Your task to perform on an android device: find photos in the google photos app Image 0: 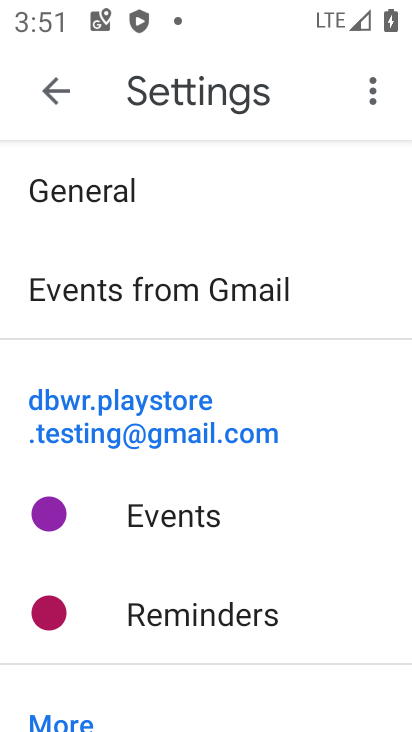
Step 0: press home button
Your task to perform on an android device: find photos in the google photos app Image 1: 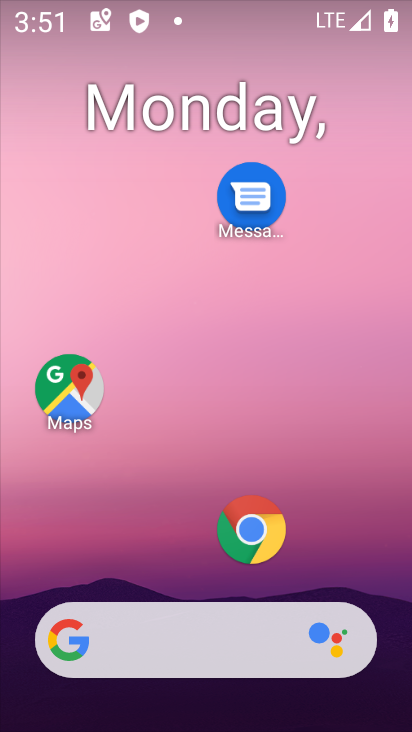
Step 1: drag from (277, 540) to (240, 1)
Your task to perform on an android device: find photos in the google photos app Image 2: 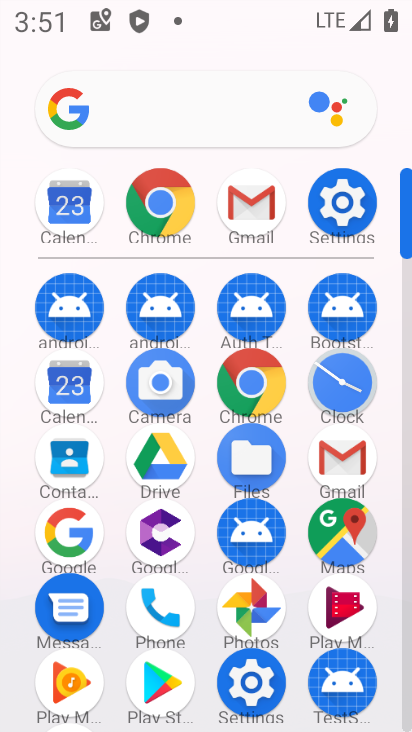
Step 2: click (237, 608)
Your task to perform on an android device: find photos in the google photos app Image 3: 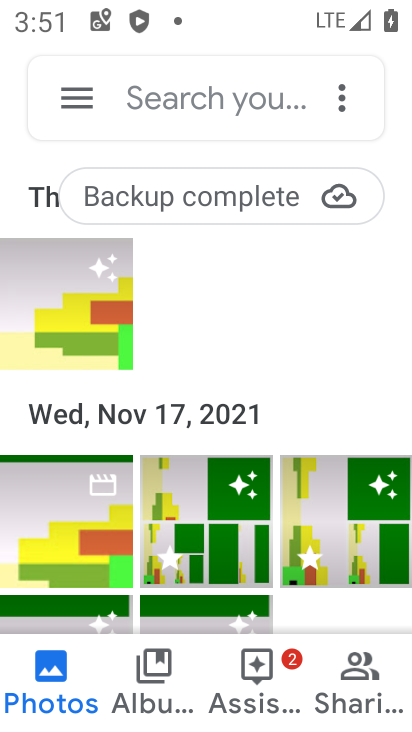
Step 3: task complete